Your task to perform on an android device: change the clock display to analog Image 0: 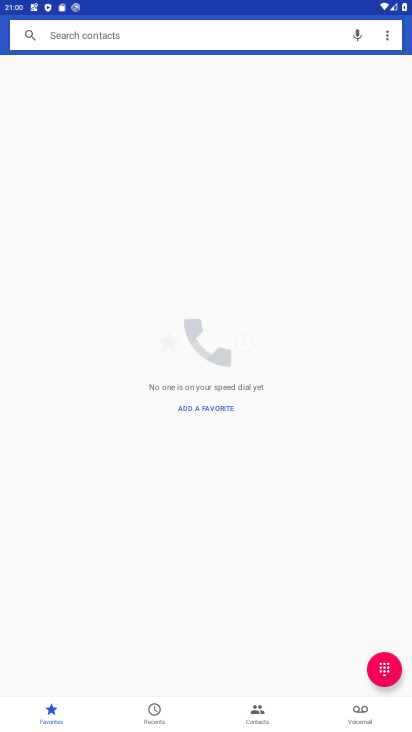
Step 0: press home button
Your task to perform on an android device: change the clock display to analog Image 1: 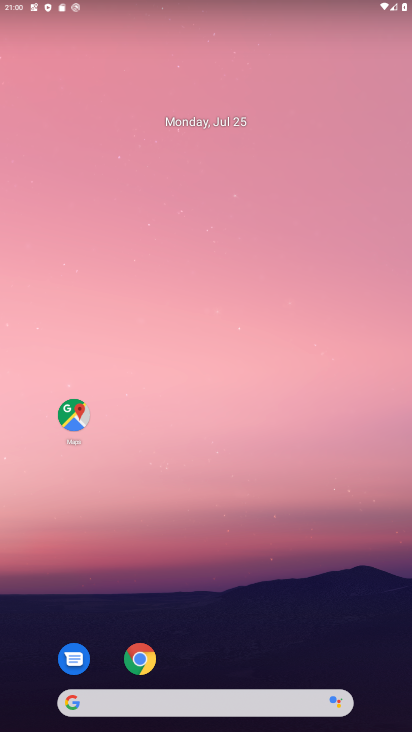
Step 1: drag from (185, 656) to (231, 113)
Your task to perform on an android device: change the clock display to analog Image 2: 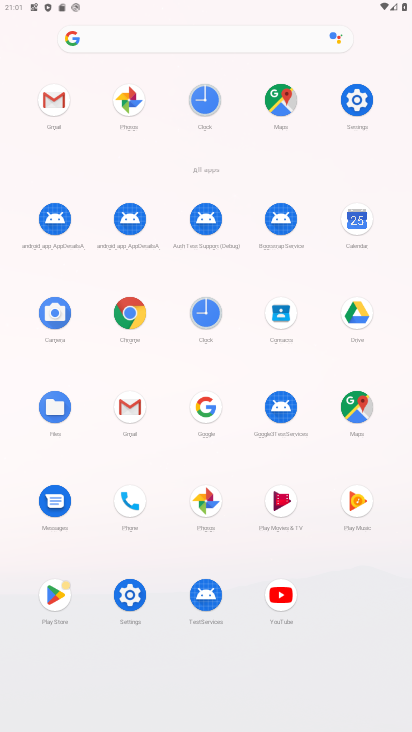
Step 2: click (213, 319)
Your task to perform on an android device: change the clock display to analog Image 3: 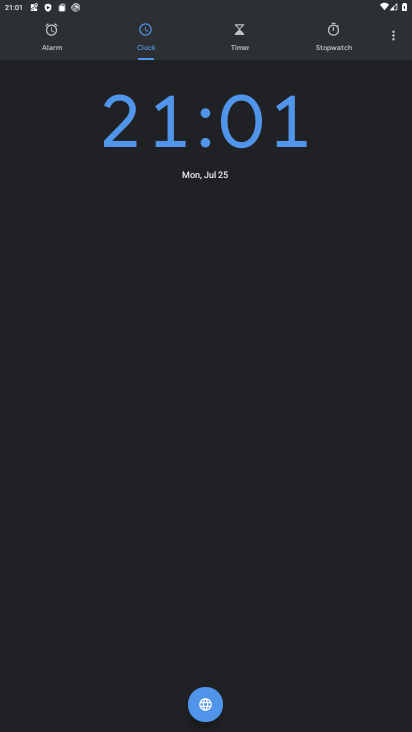
Step 3: click (387, 39)
Your task to perform on an android device: change the clock display to analog Image 4: 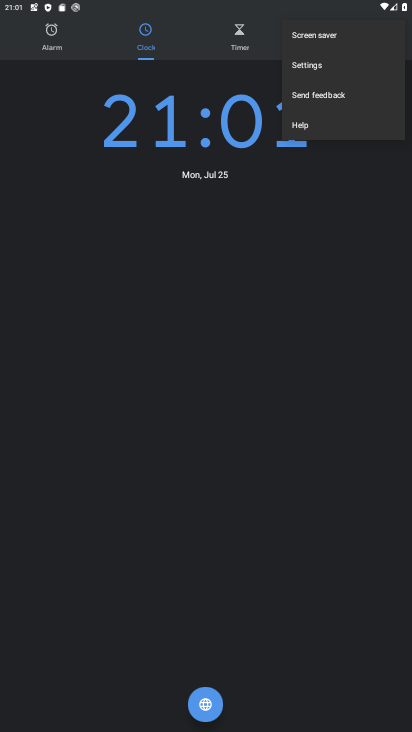
Step 4: click (340, 74)
Your task to perform on an android device: change the clock display to analog Image 5: 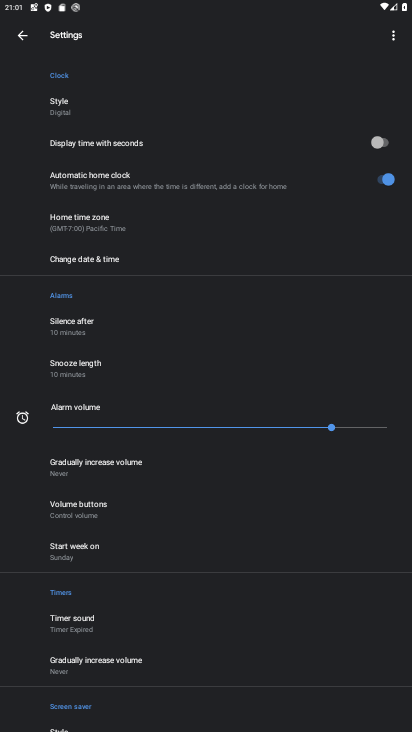
Step 5: click (95, 99)
Your task to perform on an android device: change the clock display to analog Image 6: 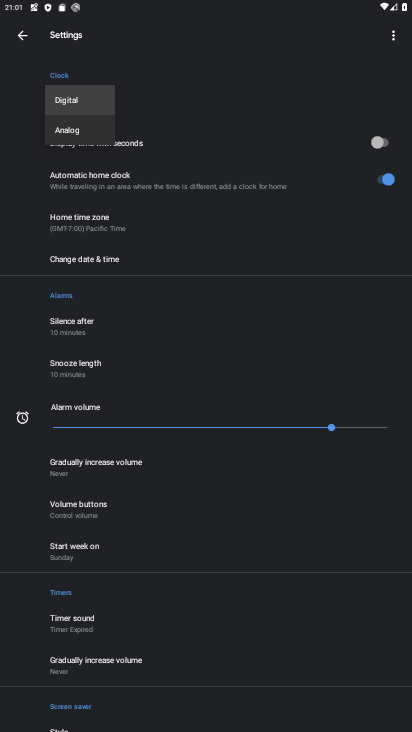
Step 6: click (76, 141)
Your task to perform on an android device: change the clock display to analog Image 7: 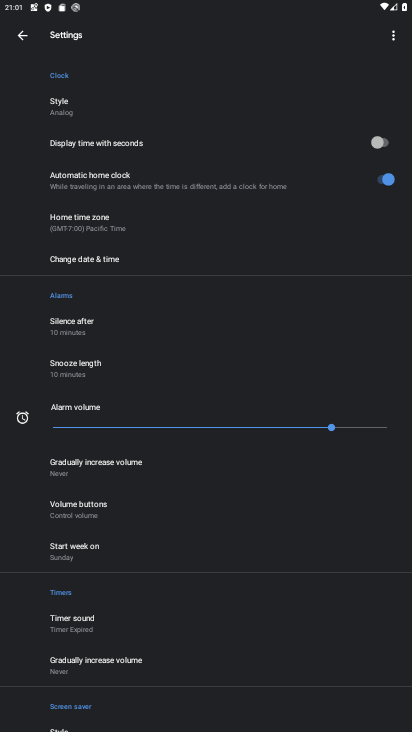
Step 7: task complete